Your task to perform on an android device: change your default location settings in chrome Image 0: 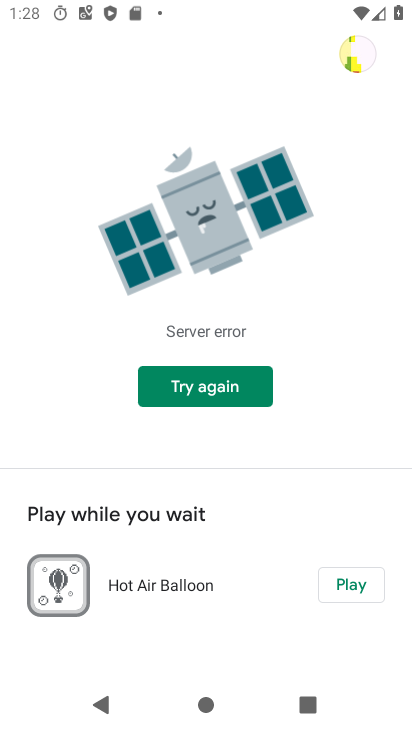
Step 0: press home button
Your task to perform on an android device: change your default location settings in chrome Image 1: 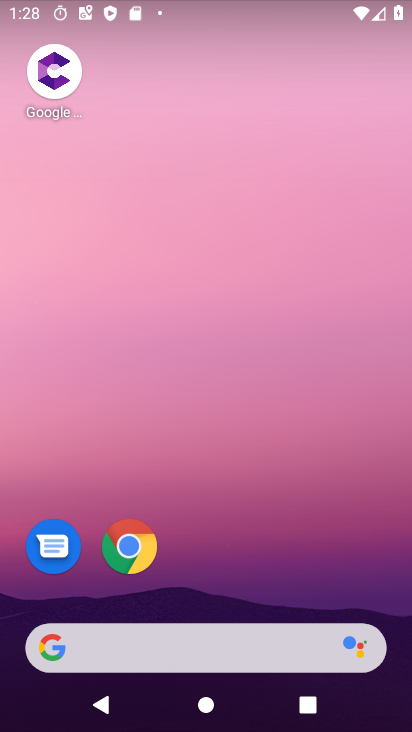
Step 1: click (128, 543)
Your task to perform on an android device: change your default location settings in chrome Image 2: 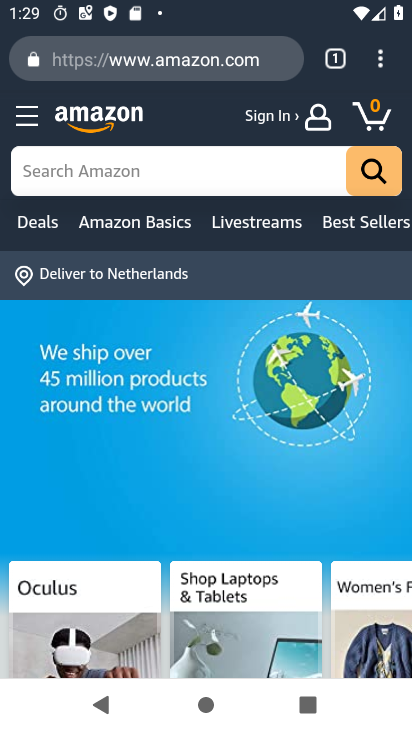
Step 2: drag from (383, 60) to (195, 564)
Your task to perform on an android device: change your default location settings in chrome Image 3: 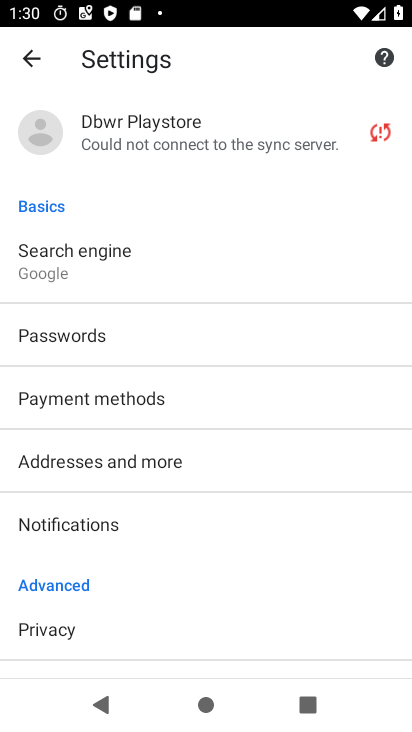
Step 3: drag from (143, 578) to (231, 105)
Your task to perform on an android device: change your default location settings in chrome Image 4: 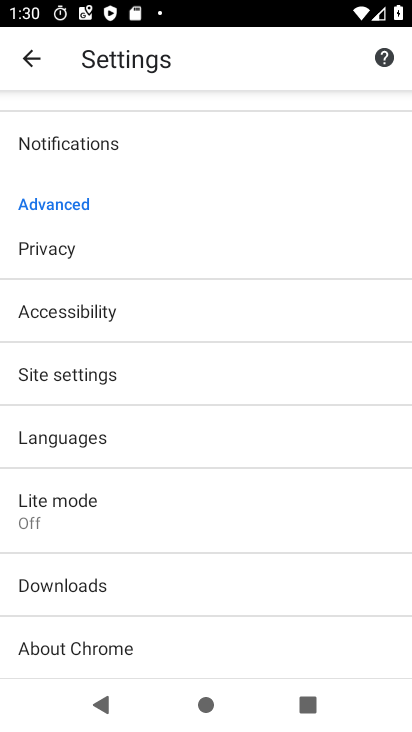
Step 4: click (95, 370)
Your task to perform on an android device: change your default location settings in chrome Image 5: 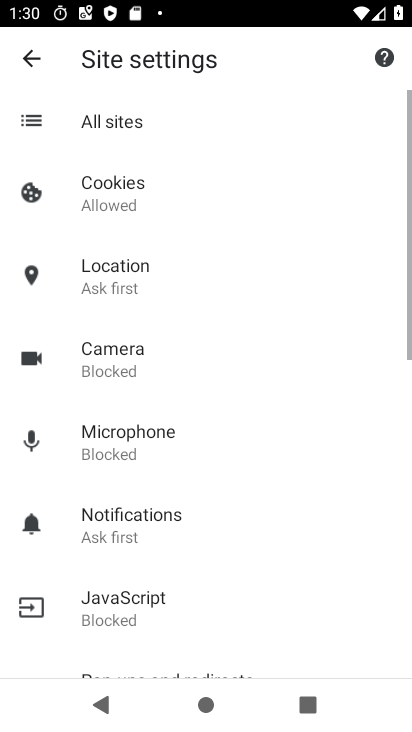
Step 5: click (129, 280)
Your task to perform on an android device: change your default location settings in chrome Image 6: 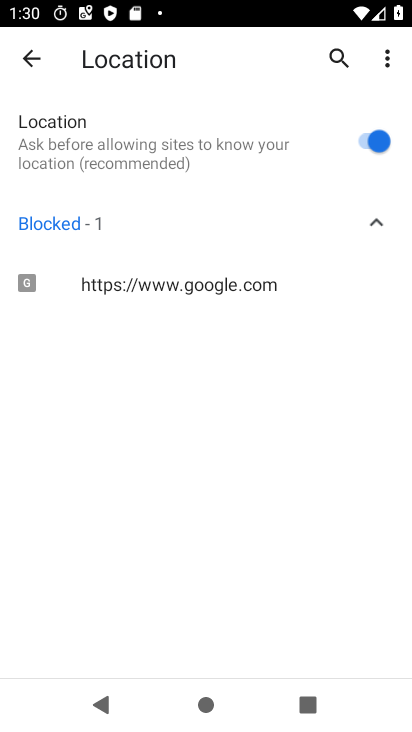
Step 6: click (385, 126)
Your task to perform on an android device: change your default location settings in chrome Image 7: 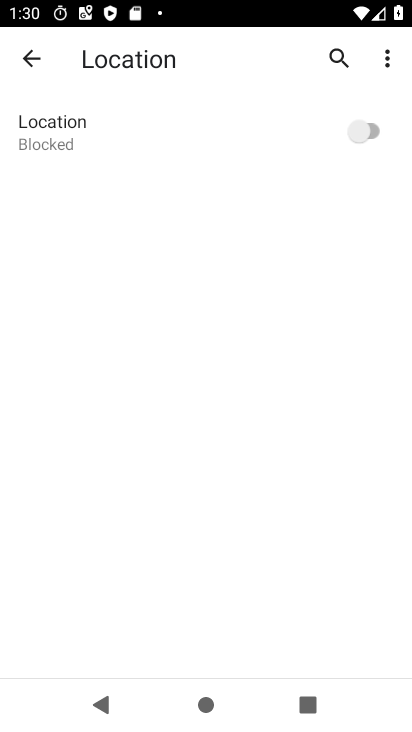
Step 7: task complete